Your task to perform on an android device: Show me the alarms in the clock app Image 0: 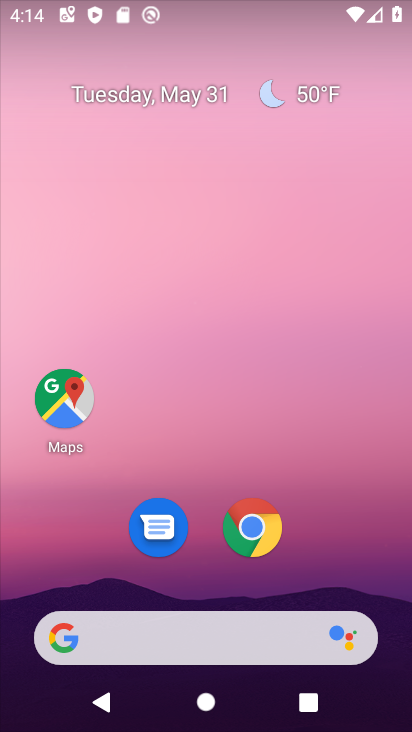
Step 0: drag from (373, 562) to (250, 56)
Your task to perform on an android device: Show me the alarms in the clock app Image 1: 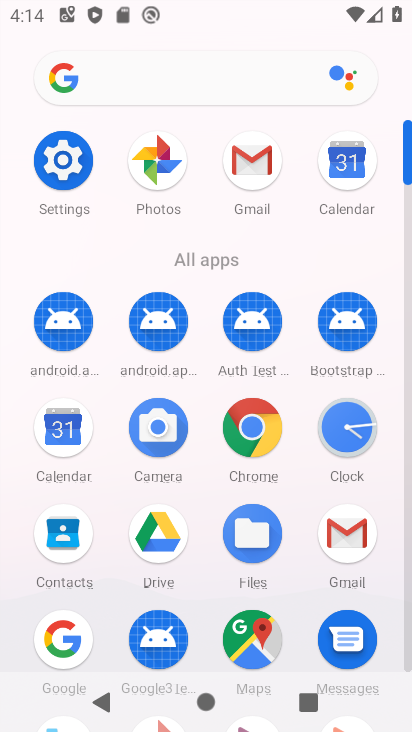
Step 1: click (356, 439)
Your task to perform on an android device: Show me the alarms in the clock app Image 2: 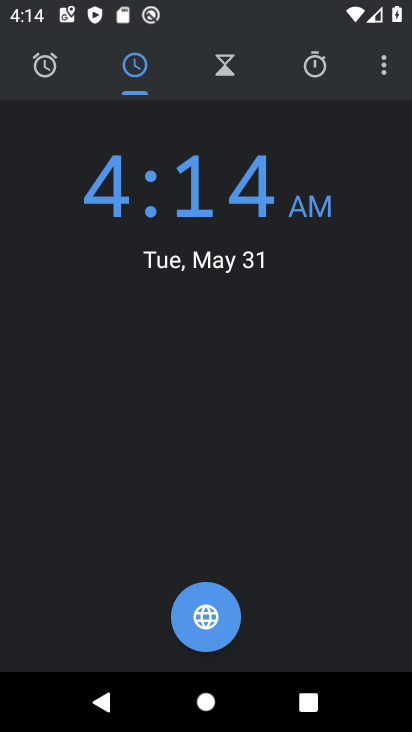
Step 2: click (58, 82)
Your task to perform on an android device: Show me the alarms in the clock app Image 3: 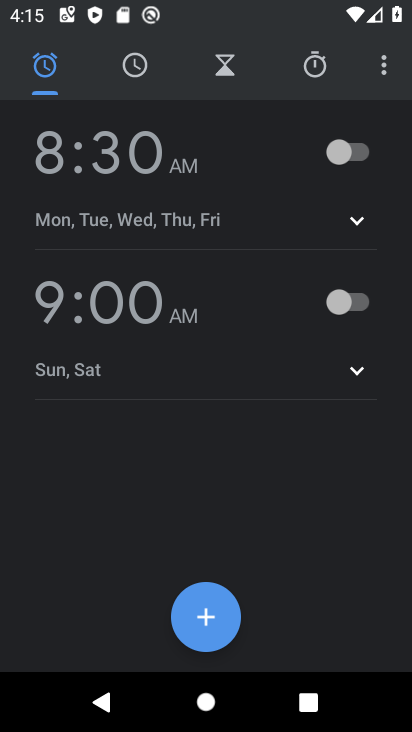
Step 3: task complete